Your task to perform on an android device: Open Reddit.com Image 0: 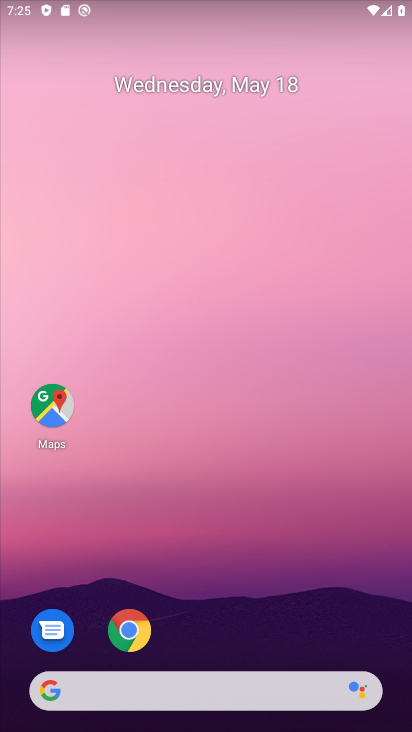
Step 0: click (135, 636)
Your task to perform on an android device: Open Reddit.com Image 1: 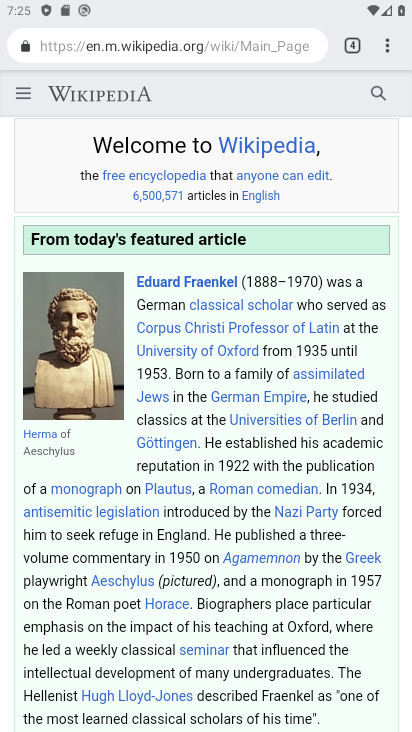
Step 1: click (383, 46)
Your task to perform on an android device: Open Reddit.com Image 2: 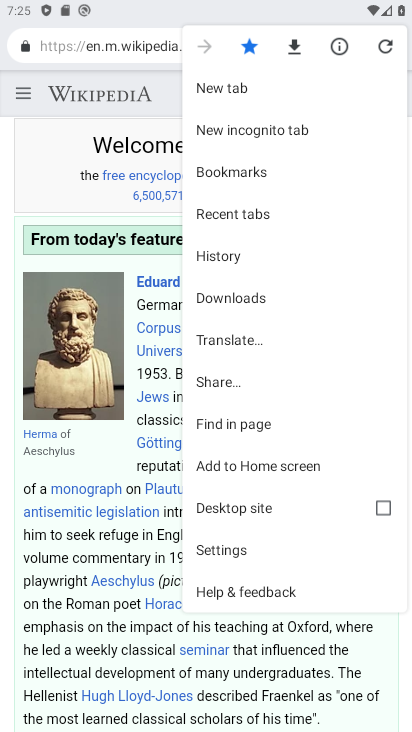
Step 2: click (230, 85)
Your task to perform on an android device: Open Reddit.com Image 3: 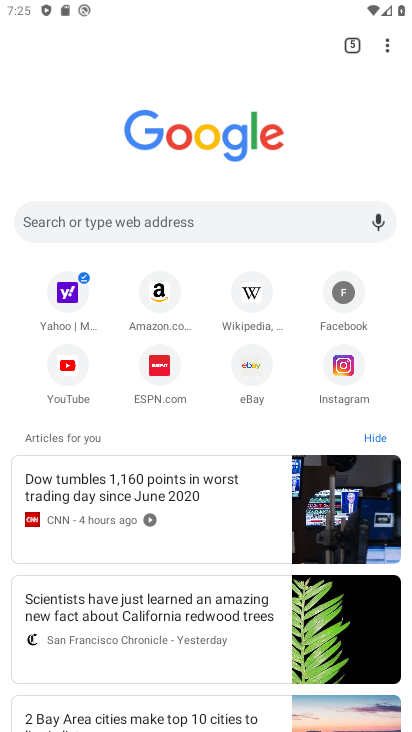
Step 3: click (156, 216)
Your task to perform on an android device: Open Reddit.com Image 4: 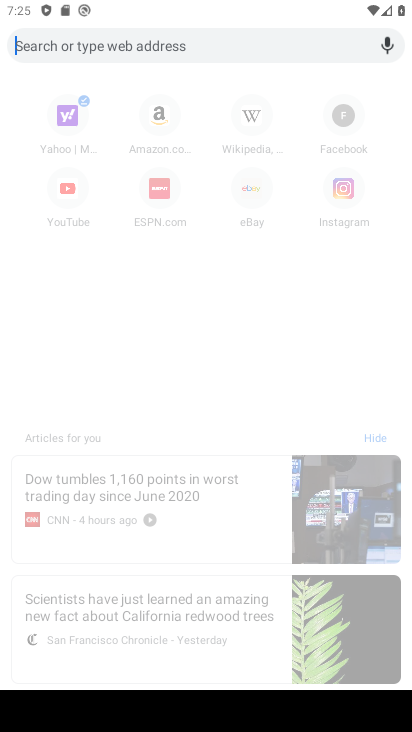
Step 4: type "reddit.com"
Your task to perform on an android device: Open Reddit.com Image 5: 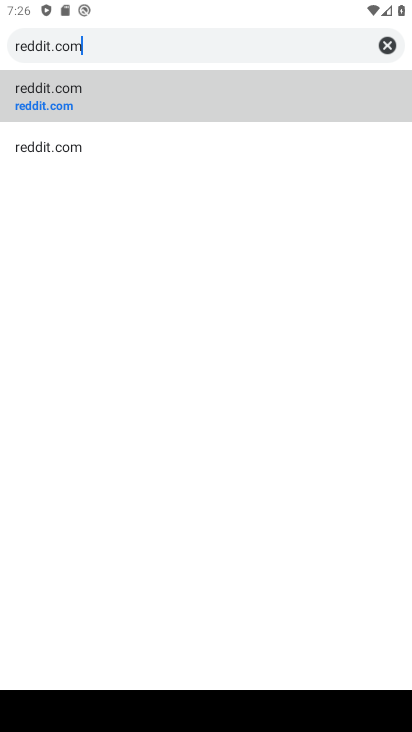
Step 5: click (40, 86)
Your task to perform on an android device: Open Reddit.com Image 6: 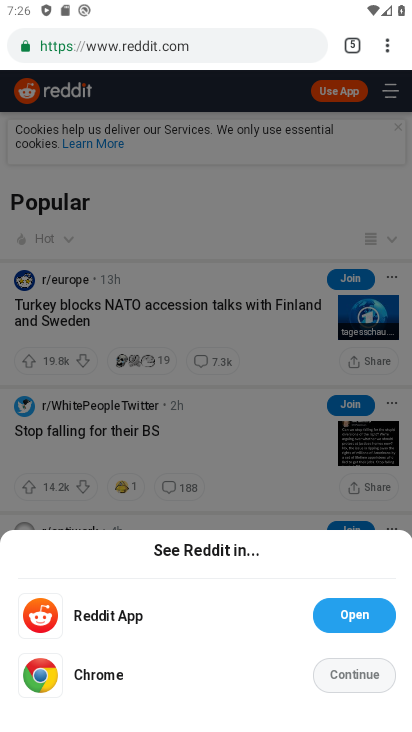
Step 6: task complete